Your task to perform on an android device: set an alarm Image 0: 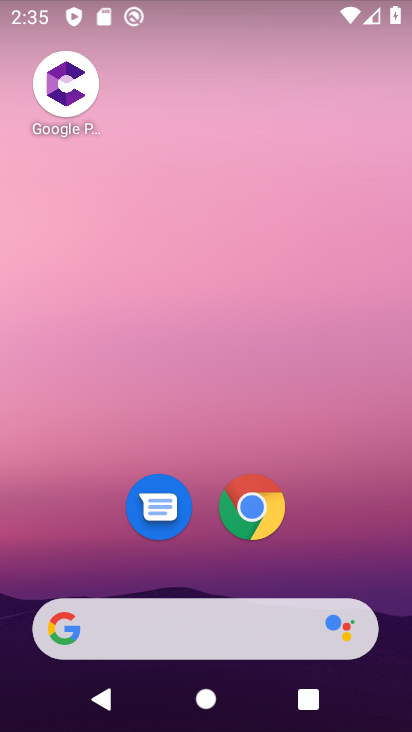
Step 0: drag from (372, 555) to (354, 130)
Your task to perform on an android device: set an alarm Image 1: 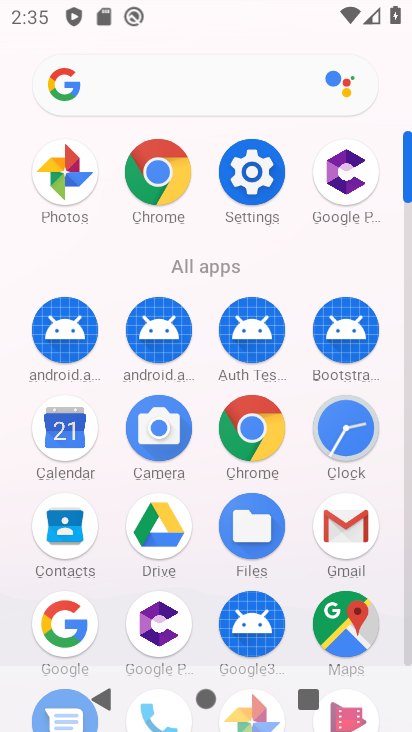
Step 1: click (337, 428)
Your task to perform on an android device: set an alarm Image 2: 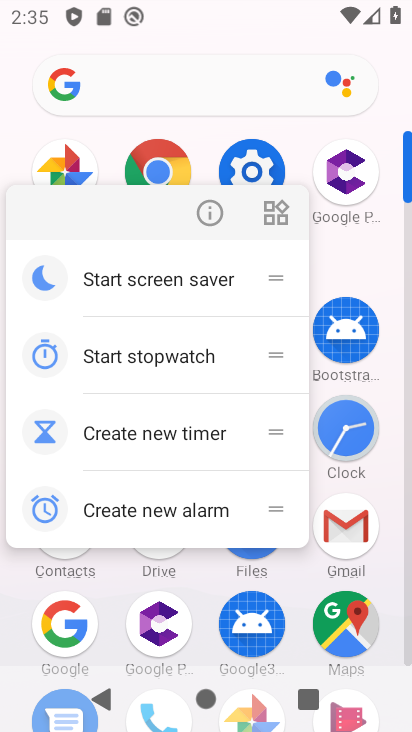
Step 2: click (336, 429)
Your task to perform on an android device: set an alarm Image 3: 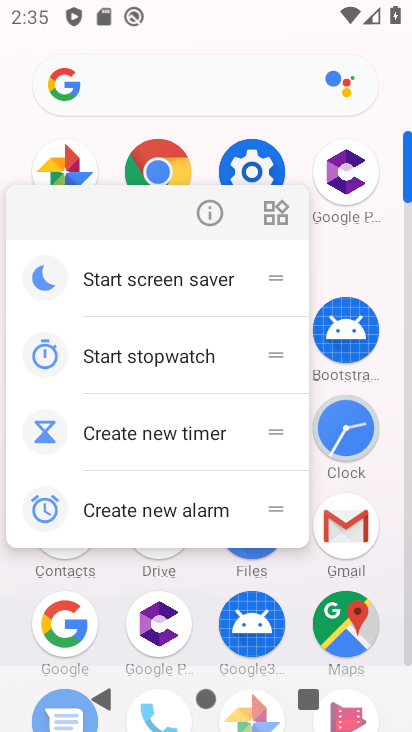
Step 3: click (335, 450)
Your task to perform on an android device: set an alarm Image 4: 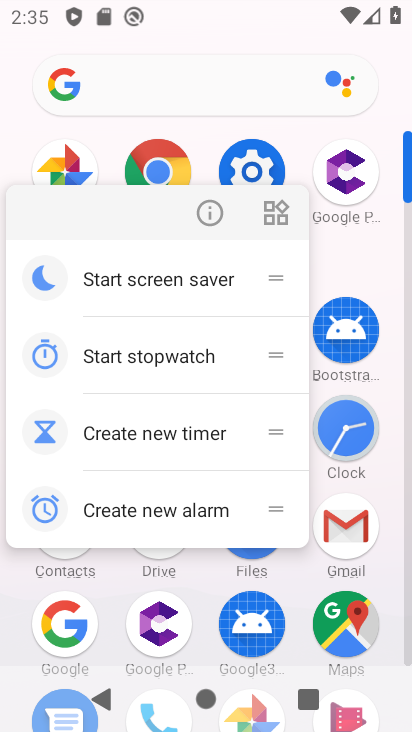
Step 4: click (357, 458)
Your task to perform on an android device: set an alarm Image 5: 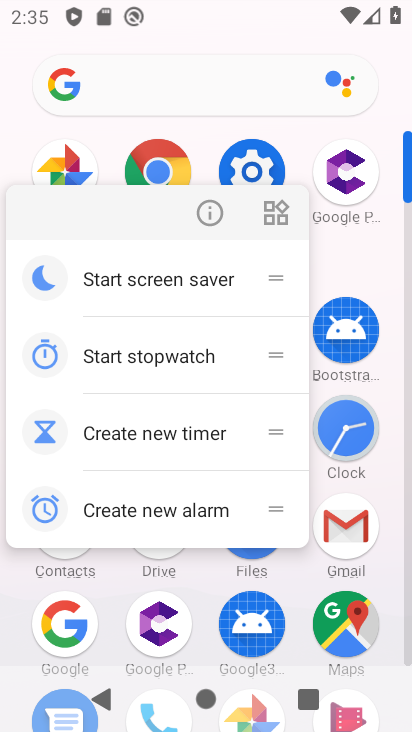
Step 5: click (370, 440)
Your task to perform on an android device: set an alarm Image 6: 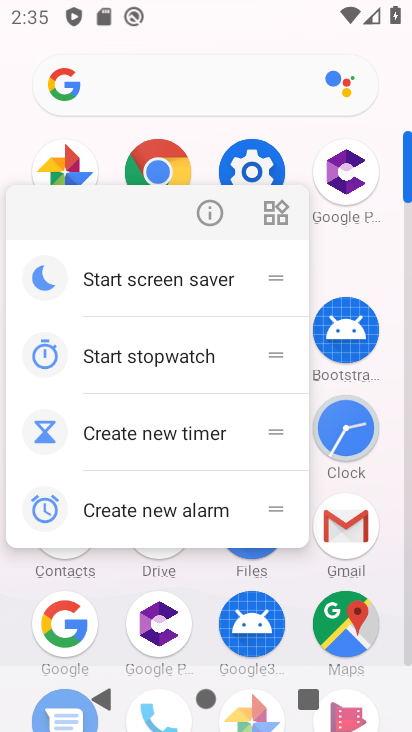
Step 6: click (370, 440)
Your task to perform on an android device: set an alarm Image 7: 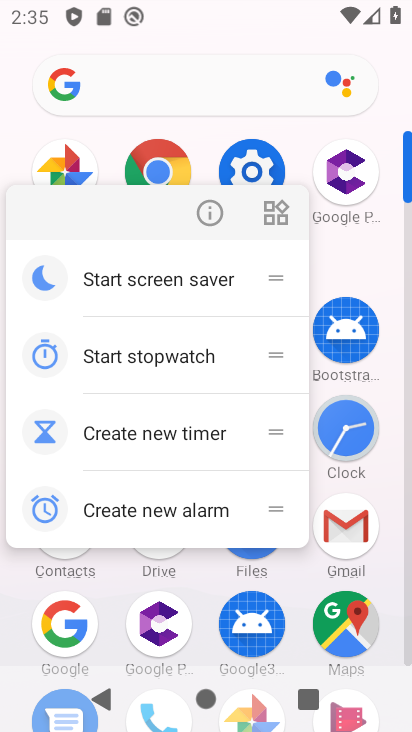
Step 7: click (351, 453)
Your task to perform on an android device: set an alarm Image 8: 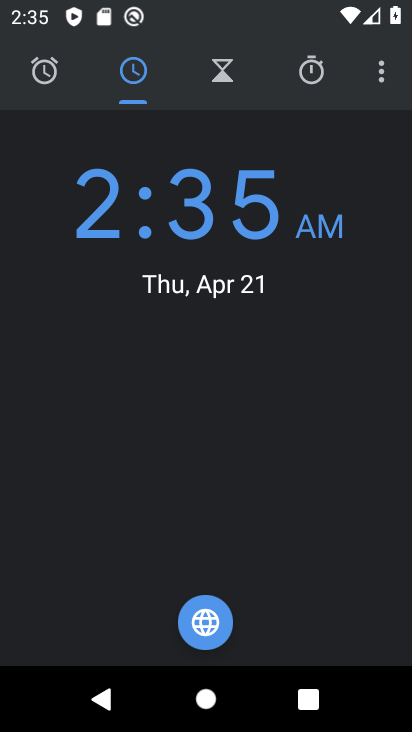
Step 8: click (54, 78)
Your task to perform on an android device: set an alarm Image 9: 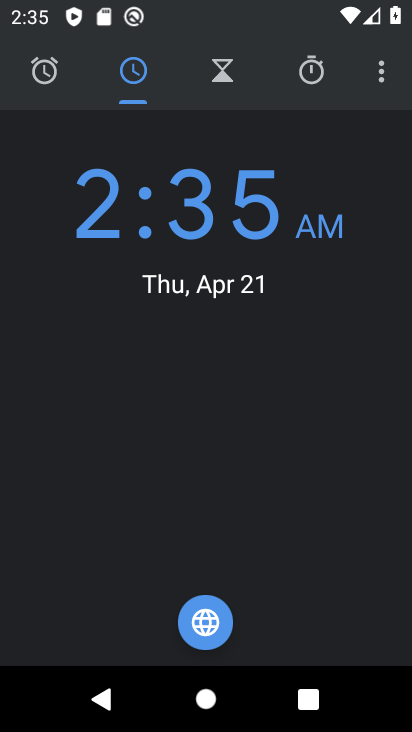
Step 9: click (38, 82)
Your task to perform on an android device: set an alarm Image 10: 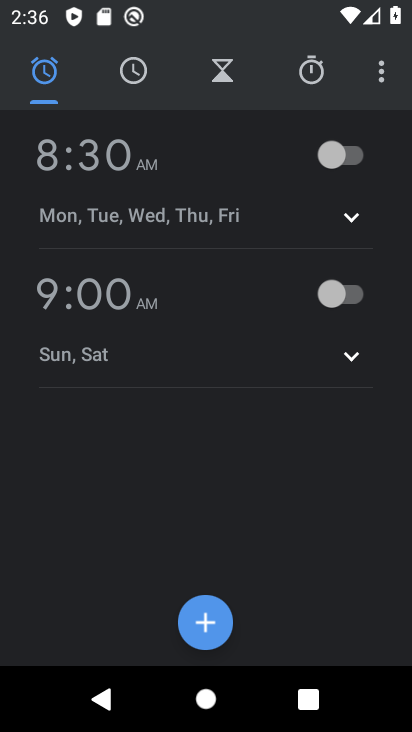
Step 10: click (215, 621)
Your task to perform on an android device: set an alarm Image 11: 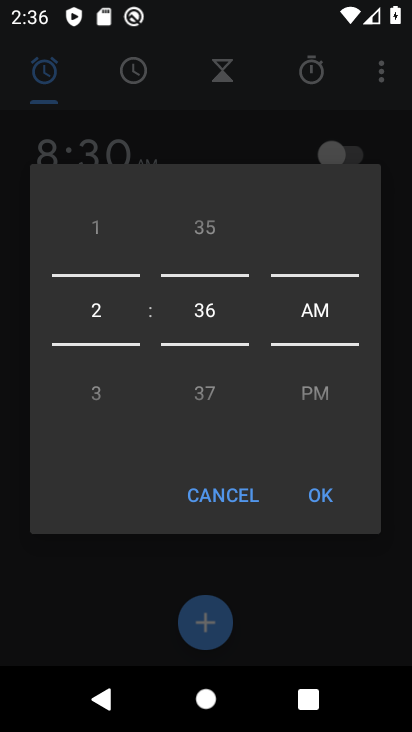
Step 11: click (319, 499)
Your task to perform on an android device: set an alarm Image 12: 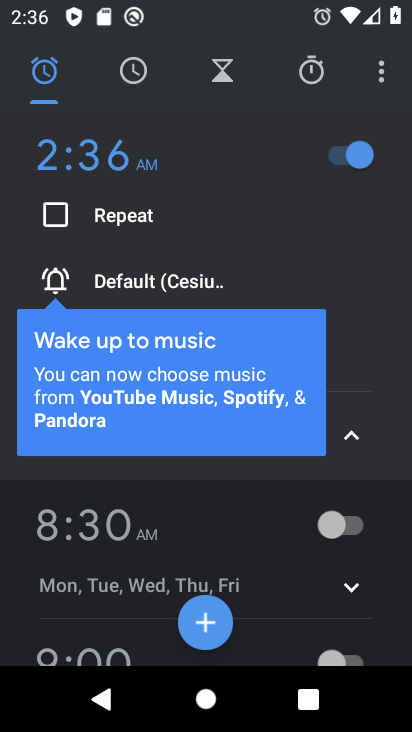
Step 12: task complete